Your task to perform on an android device: Do I have any events today? Image 0: 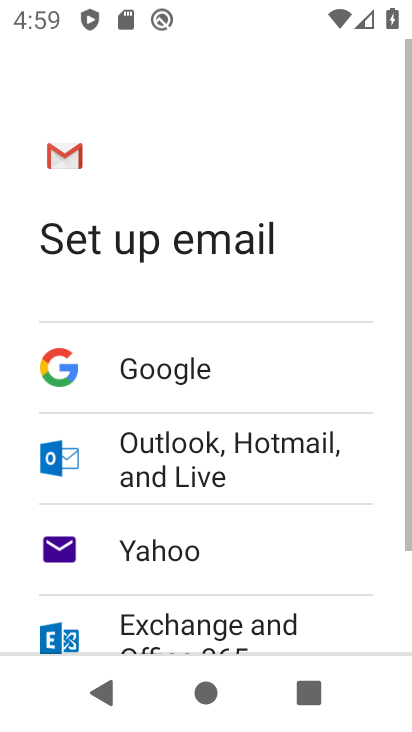
Step 0: press home button
Your task to perform on an android device: Do I have any events today? Image 1: 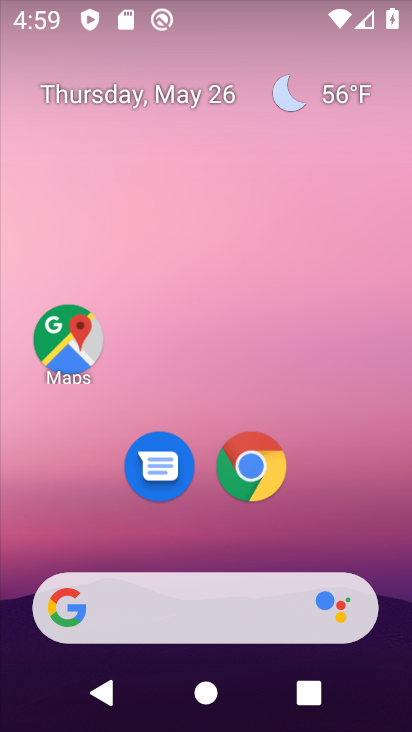
Step 1: drag from (331, 501) to (367, 83)
Your task to perform on an android device: Do I have any events today? Image 2: 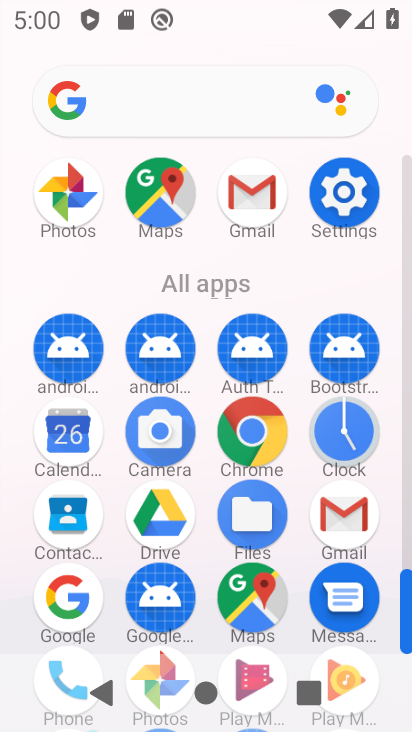
Step 2: click (80, 432)
Your task to perform on an android device: Do I have any events today? Image 3: 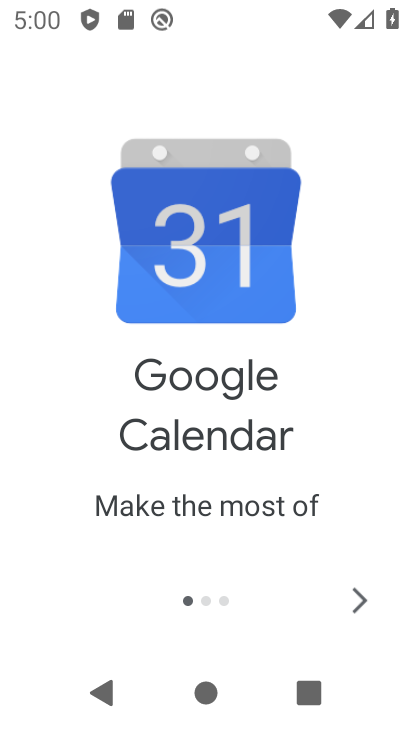
Step 3: click (351, 599)
Your task to perform on an android device: Do I have any events today? Image 4: 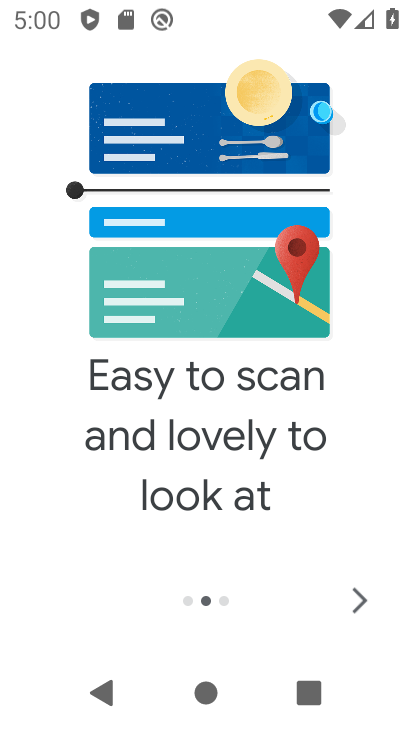
Step 4: click (351, 599)
Your task to perform on an android device: Do I have any events today? Image 5: 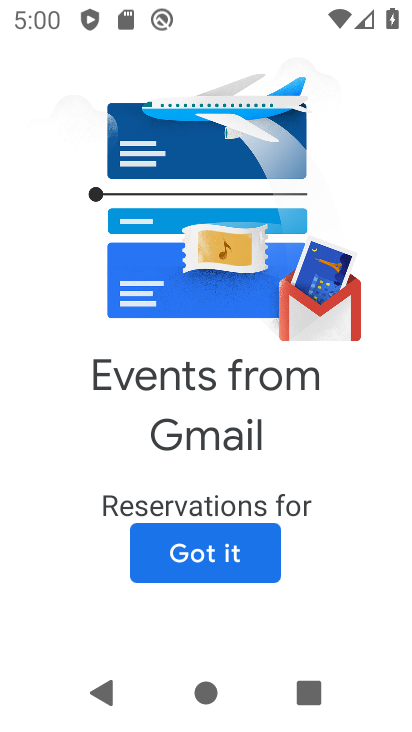
Step 5: click (253, 546)
Your task to perform on an android device: Do I have any events today? Image 6: 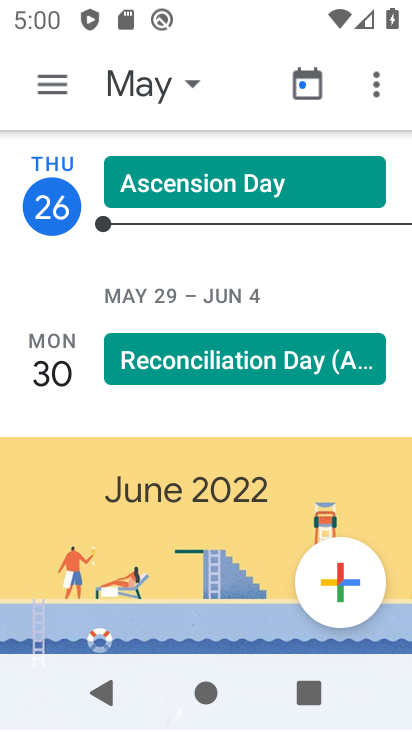
Step 6: click (166, 93)
Your task to perform on an android device: Do I have any events today? Image 7: 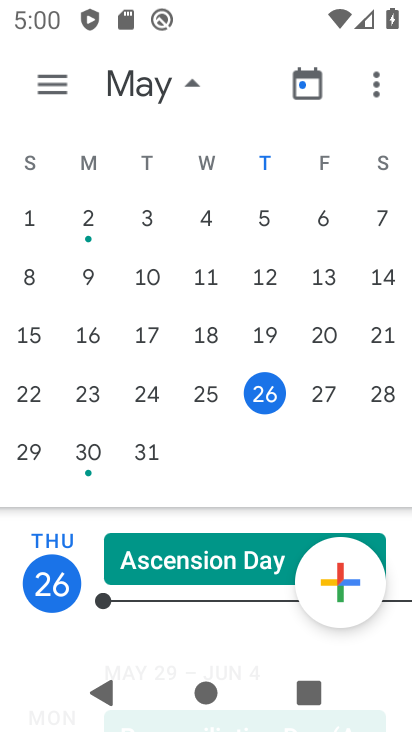
Step 7: click (258, 392)
Your task to perform on an android device: Do I have any events today? Image 8: 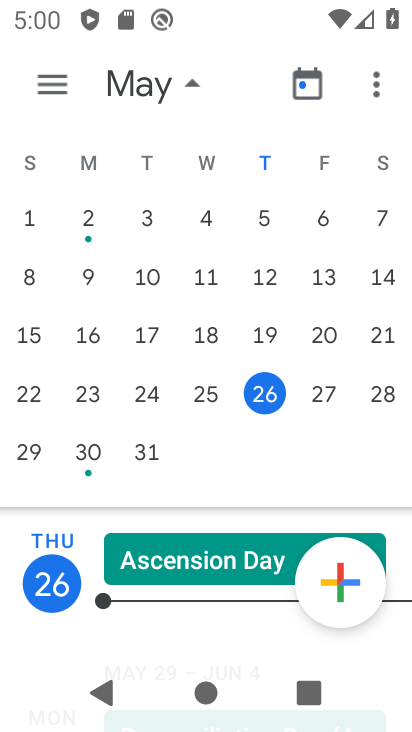
Step 8: drag from (175, 524) to (220, 303)
Your task to perform on an android device: Do I have any events today? Image 9: 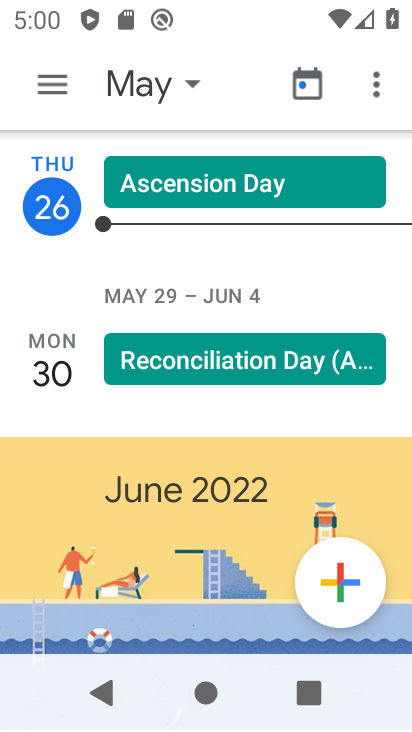
Step 9: drag from (162, 177) to (160, 297)
Your task to perform on an android device: Do I have any events today? Image 10: 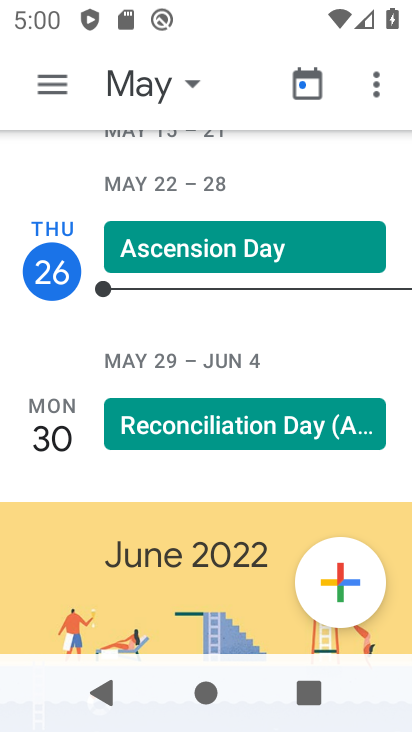
Step 10: click (64, 80)
Your task to perform on an android device: Do I have any events today? Image 11: 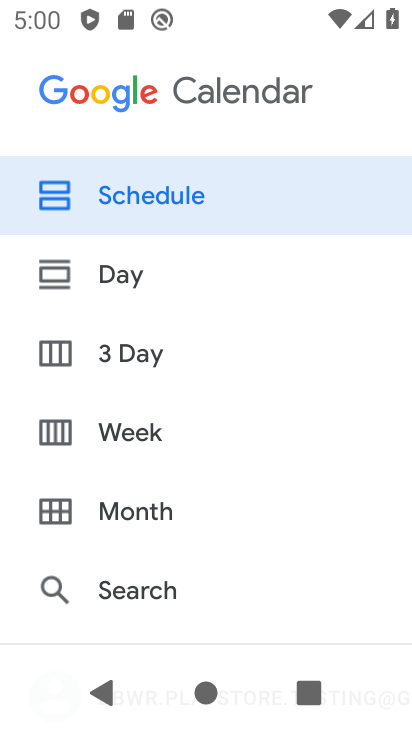
Step 11: click (138, 193)
Your task to perform on an android device: Do I have any events today? Image 12: 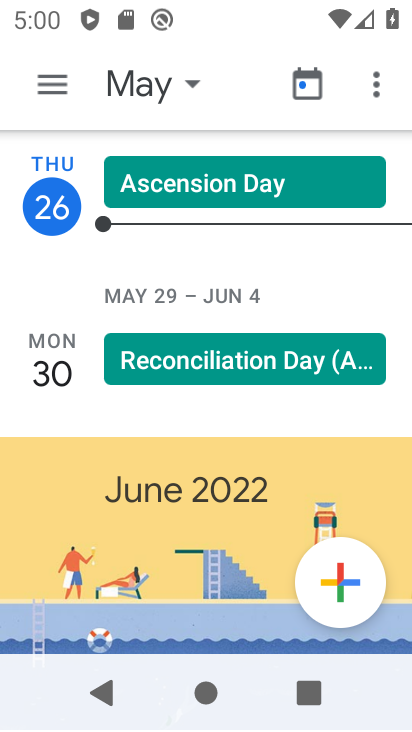
Step 12: task complete